Your task to perform on an android device: open chrome privacy settings Image 0: 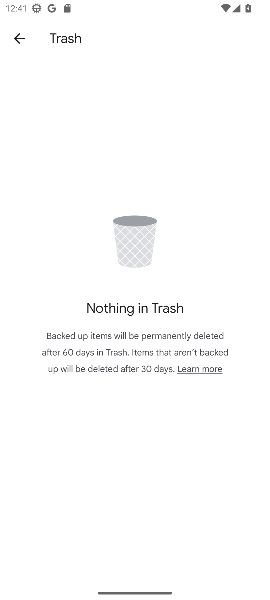
Step 0: press home button
Your task to perform on an android device: open chrome privacy settings Image 1: 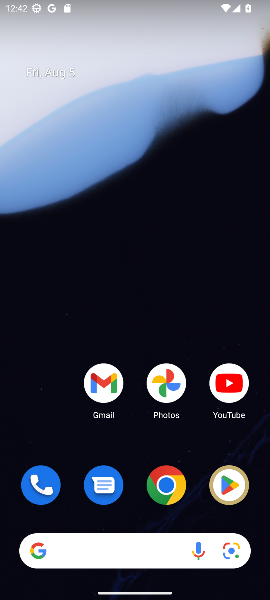
Step 1: click (159, 478)
Your task to perform on an android device: open chrome privacy settings Image 2: 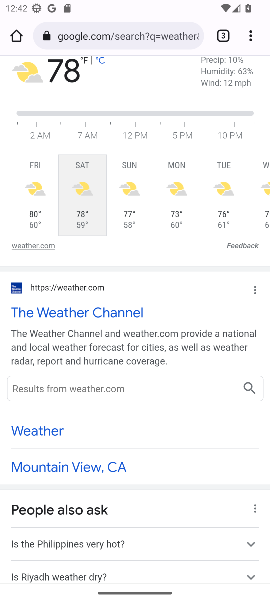
Step 2: click (248, 34)
Your task to perform on an android device: open chrome privacy settings Image 3: 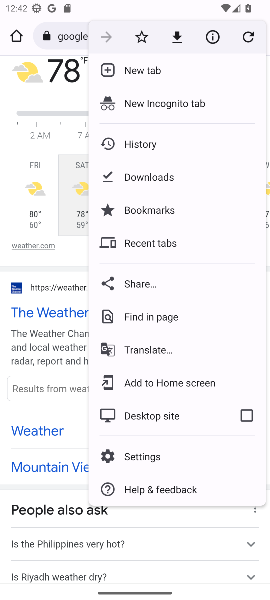
Step 3: click (140, 456)
Your task to perform on an android device: open chrome privacy settings Image 4: 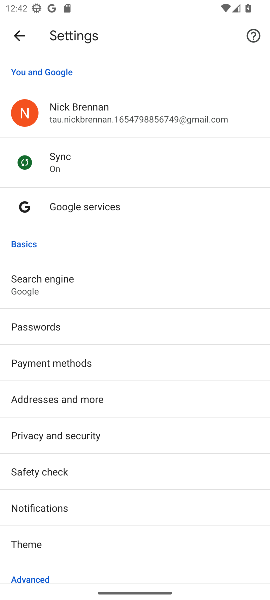
Step 4: click (58, 434)
Your task to perform on an android device: open chrome privacy settings Image 5: 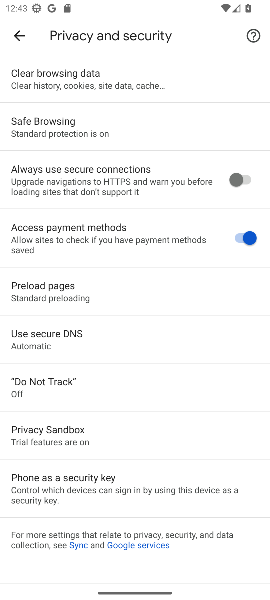
Step 5: task complete